Your task to perform on an android device: Open Yahoo.com Image 0: 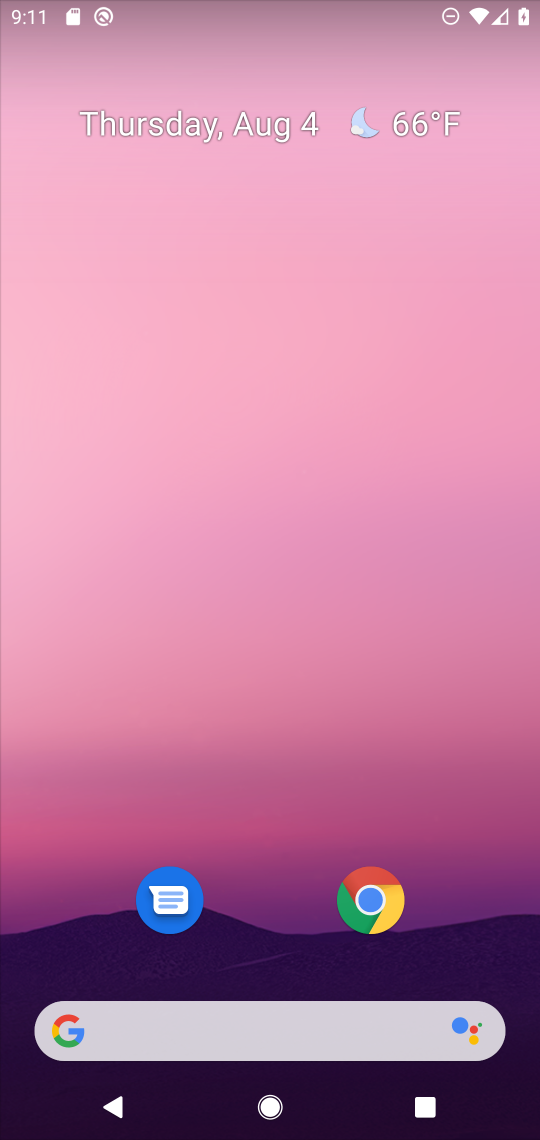
Step 0: click (362, 903)
Your task to perform on an android device: Open Yahoo.com Image 1: 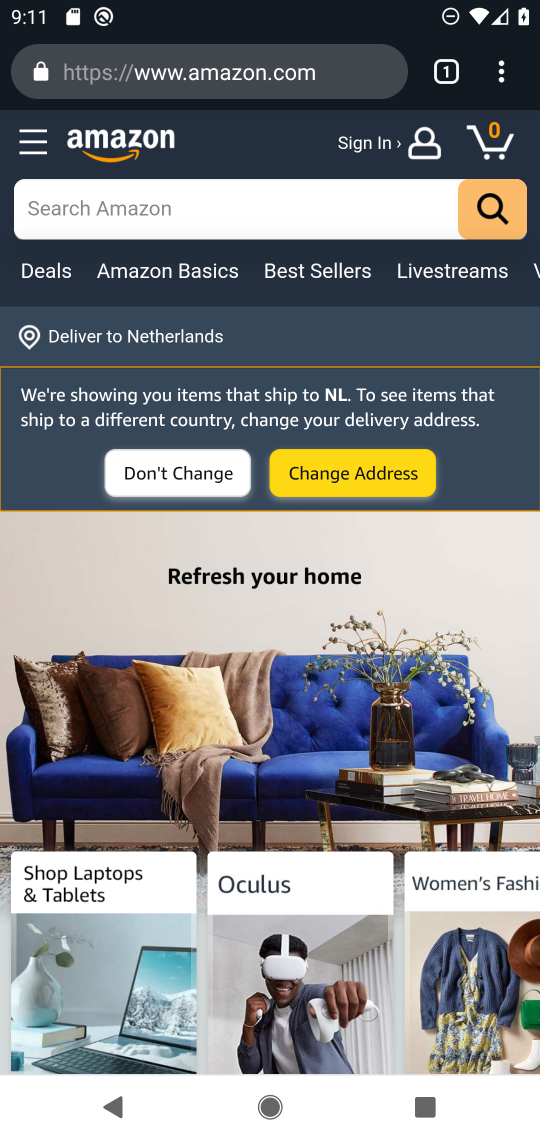
Step 1: click (243, 85)
Your task to perform on an android device: Open Yahoo.com Image 2: 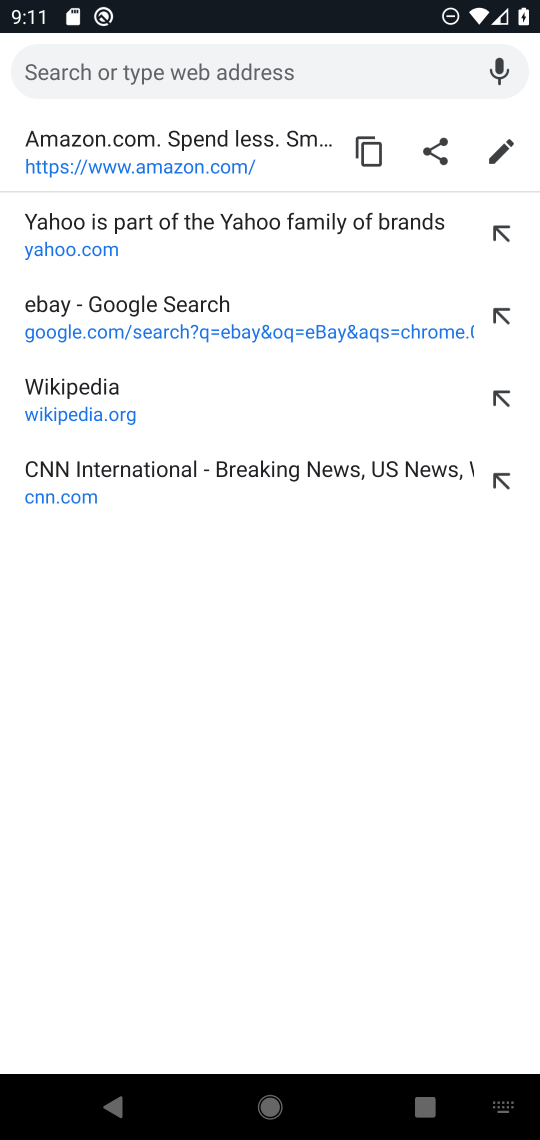
Step 2: type "www.yahoo.com"
Your task to perform on an android device: Open Yahoo.com Image 3: 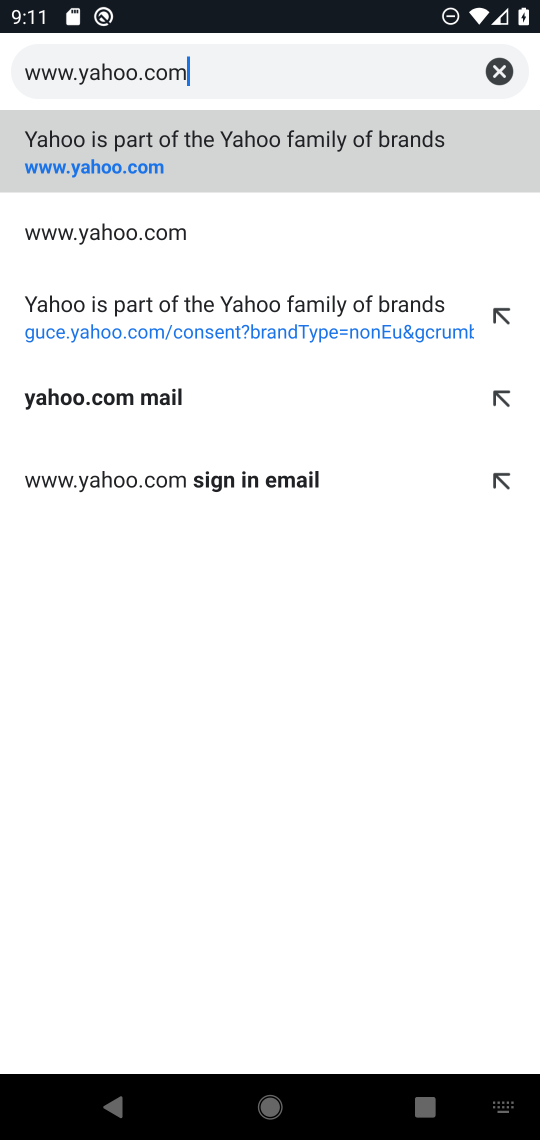
Step 3: click (108, 165)
Your task to perform on an android device: Open Yahoo.com Image 4: 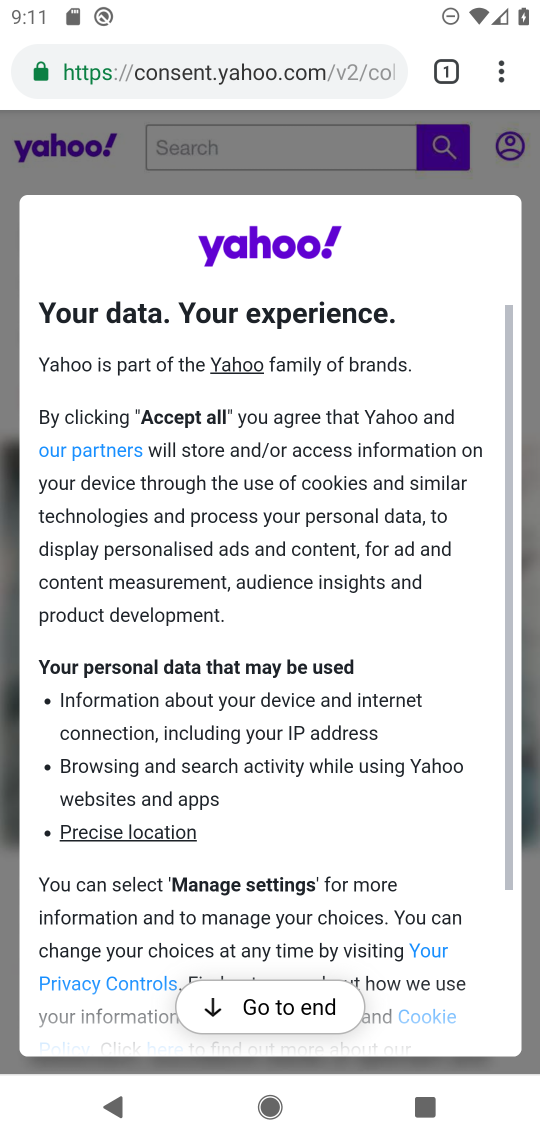
Step 4: task complete